Your task to perform on an android device: uninstall "Venmo" Image 0: 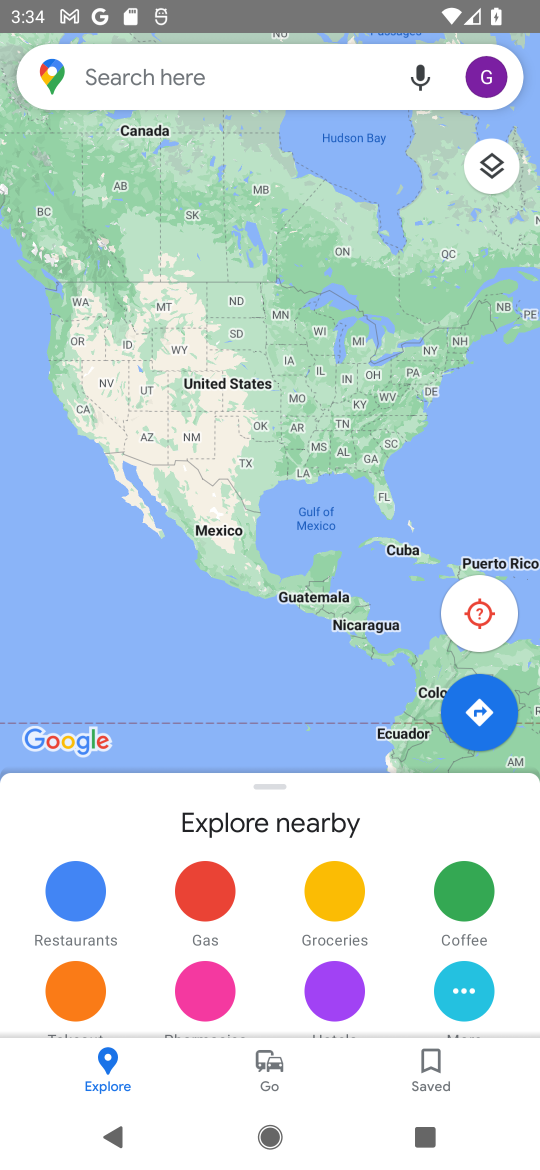
Step 0: click (319, 424)
Your task to perform on an android device: uninstall "Venmo" Image 1: 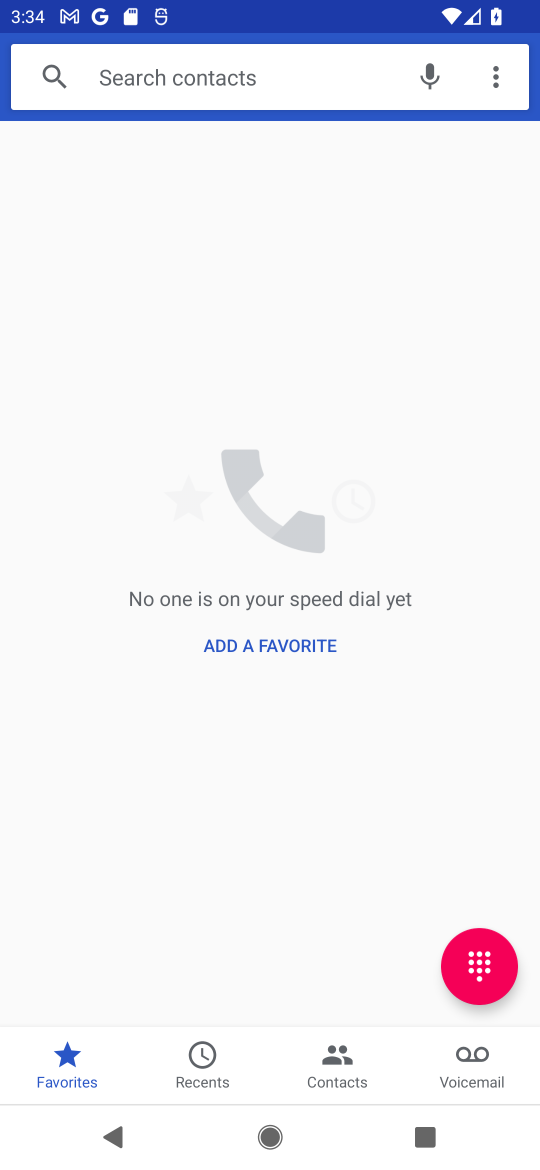
Step 1: drag from (250, 853) to (373, 328)
Your task to perform on an android device: uninstall "Venmo" Image 2: 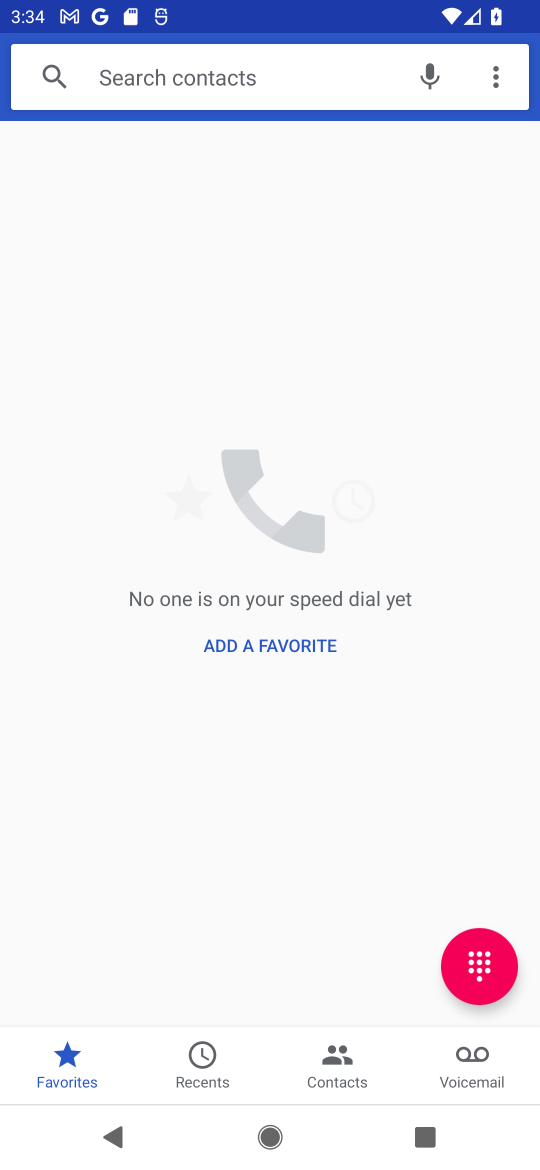
Step 2: drag from (261, 976) to (514, 303)
Your task to perform on an android device: uninstall "Venmo" Image 3: 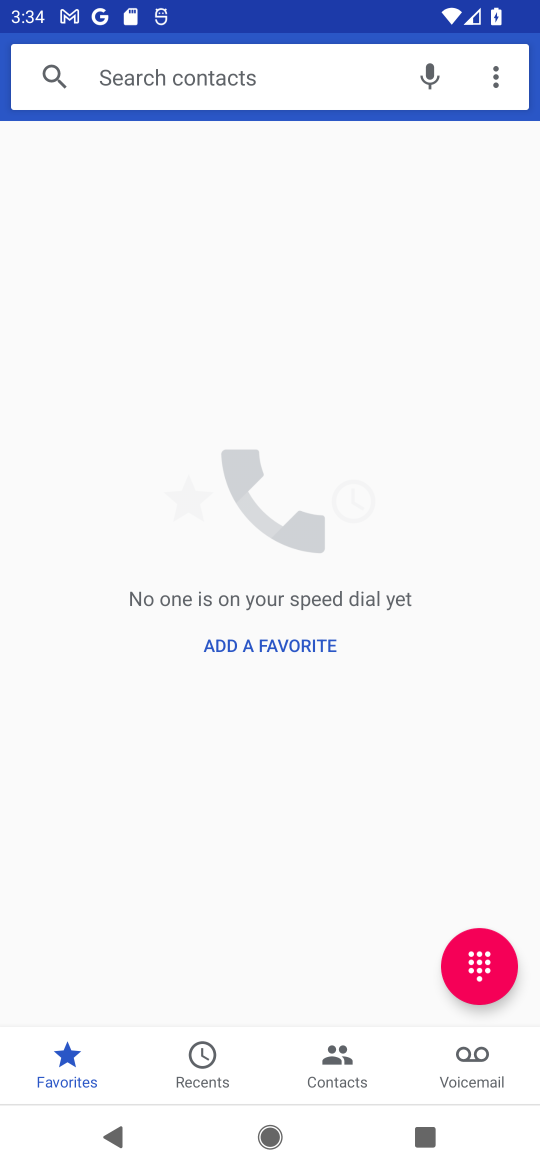
Step 3: press home button
Your task to perform on an android device: uninstall "Venmo" Image 4: 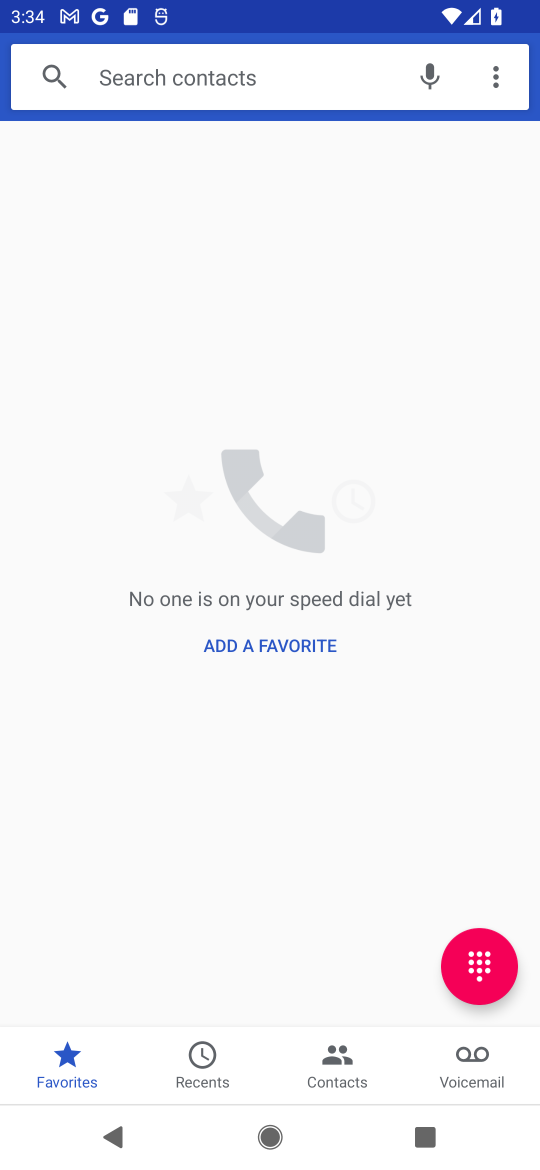
Step 4: drag from (514, 303) to (511, 674)
Your task to perform on an android device: uninstall "Venmo" Image 5: 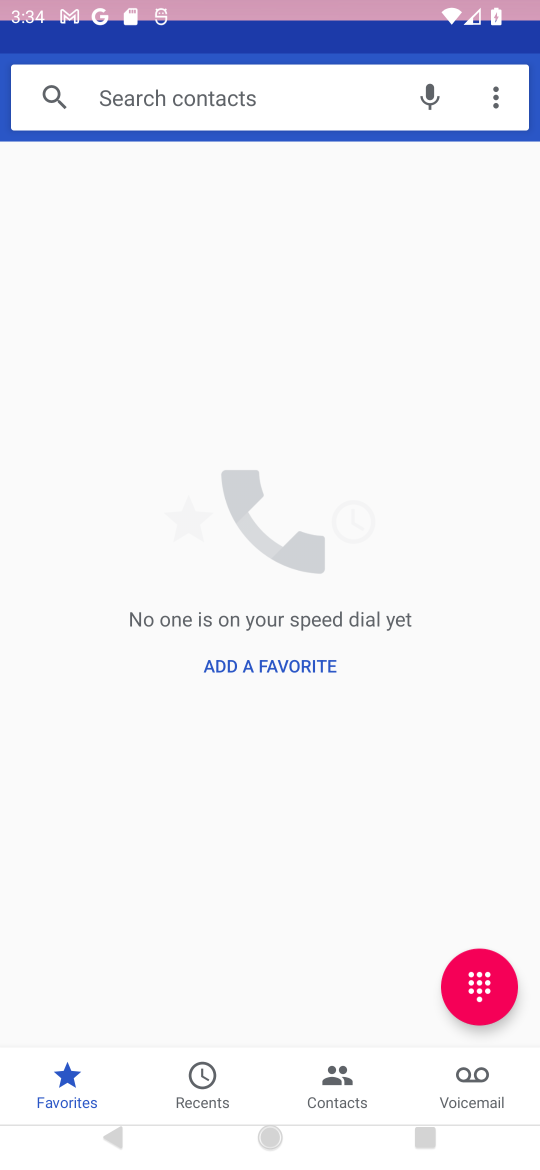
Step 5: drag from (125, 957) to (409, 213)
Your task to perform on an android device: uninstall "Venmo" Image 6: 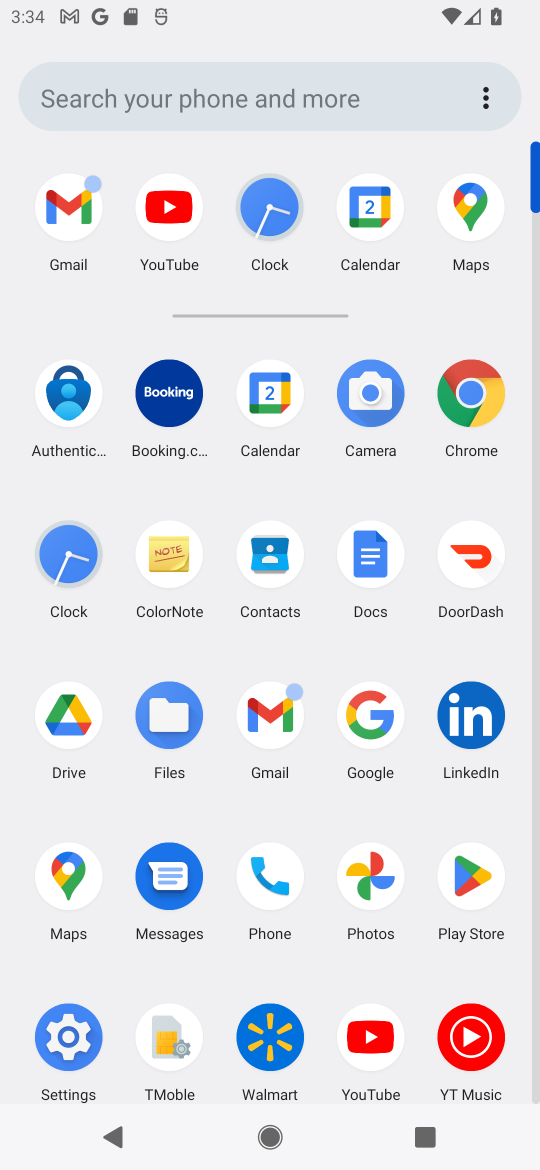
Step 6: click (474, 876)
Your task to perform on an android device: uninstall "Venmo" Image 7: 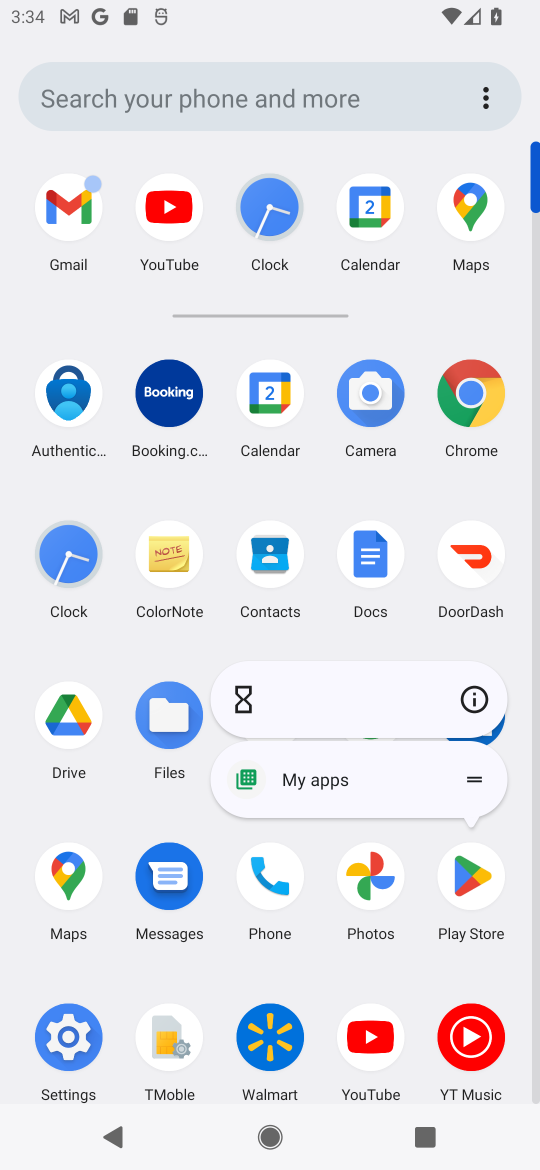
Step 7: click (463, 691)
Your task to perform on an android device: uninstall "Venmo" Image 8: 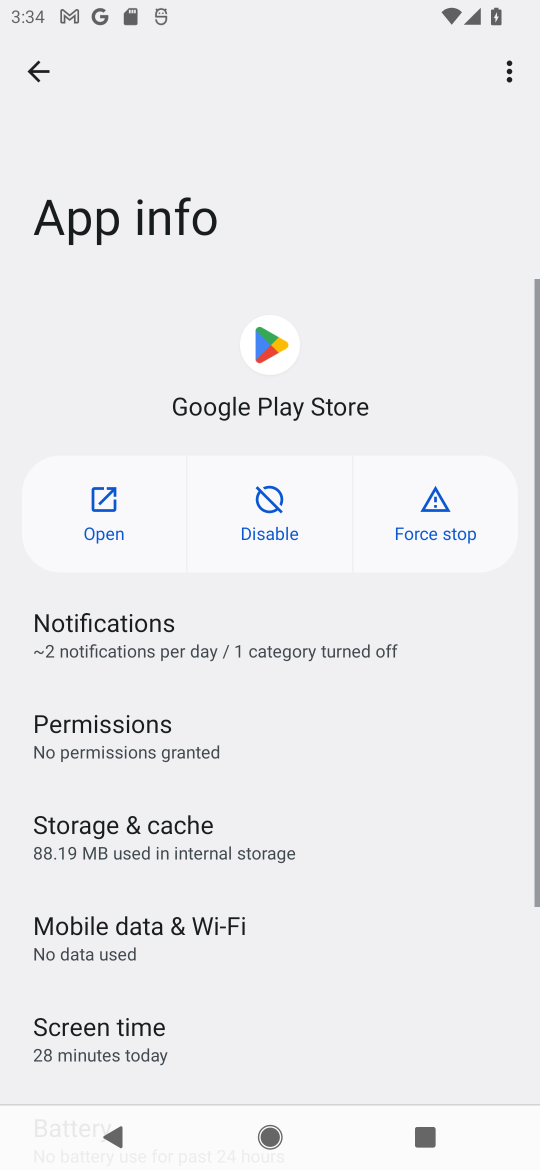
Step 8: click (125, 518)
Your task to perform on an android device: uninstall "Venmo" Image 9: 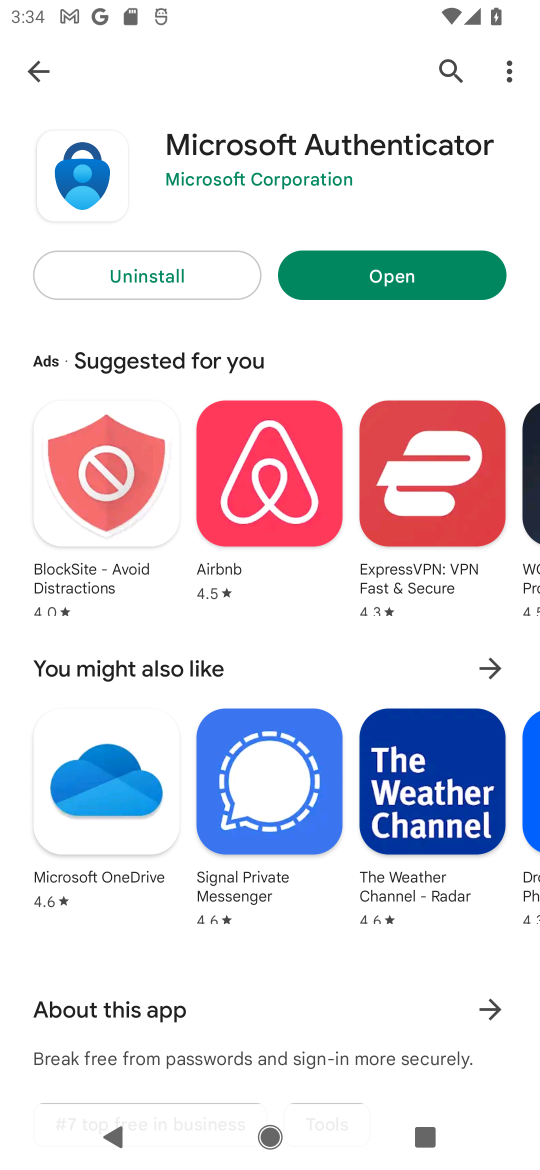
Step 9: click (451, 66)
Your task to perform on an android device: uninstall "Venmo" Image 10: 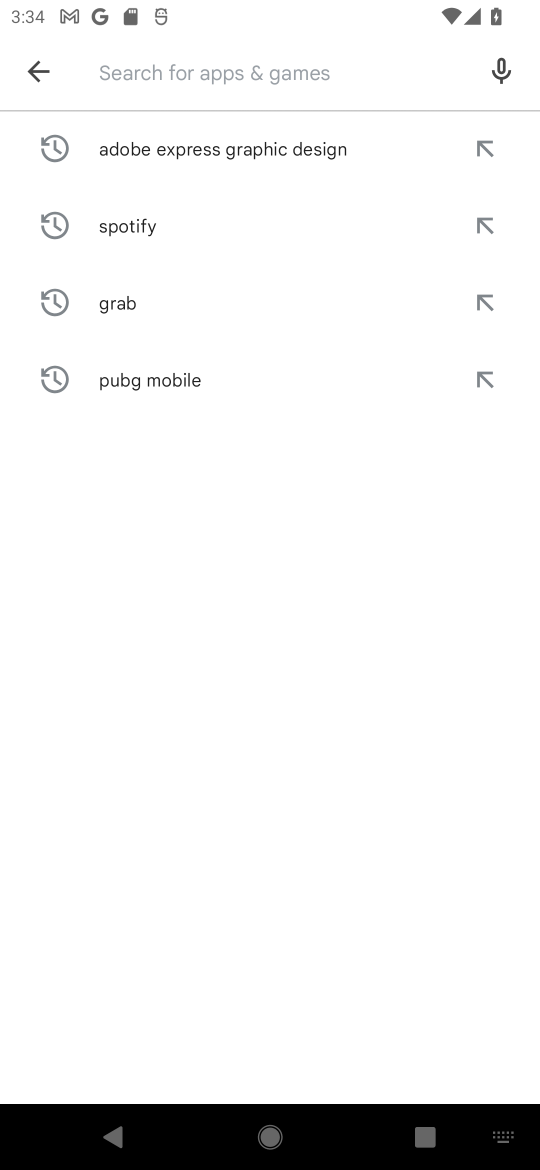
Step 10: click (141, 69)
Your task to perform on an android device: uninstall "Venmo" Image 11: 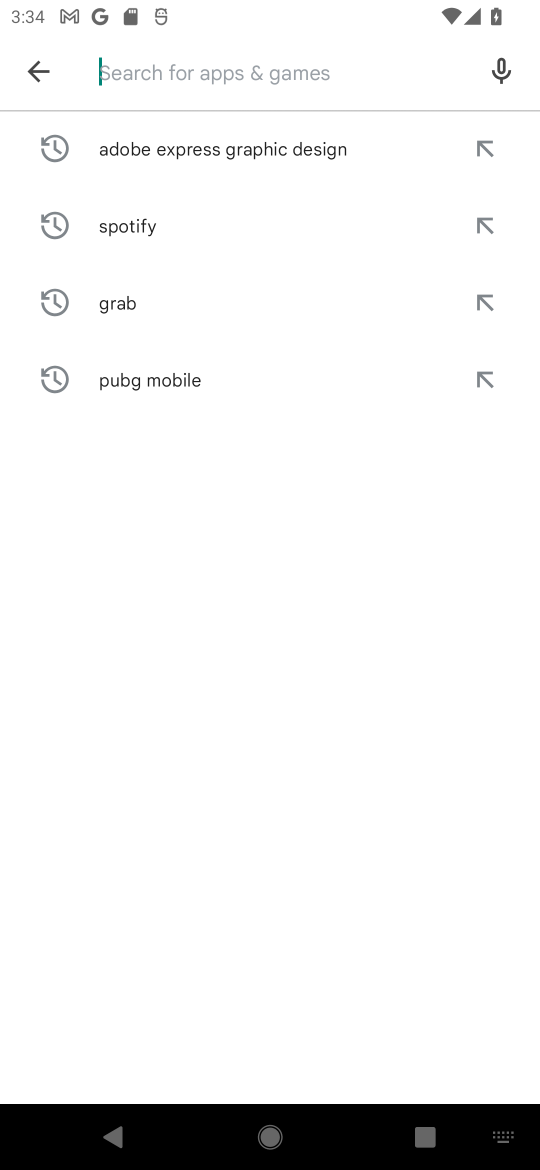
Step 11: type "Venmo"
Your task to perform on an android device: uninstall "Venmo" Image 12: 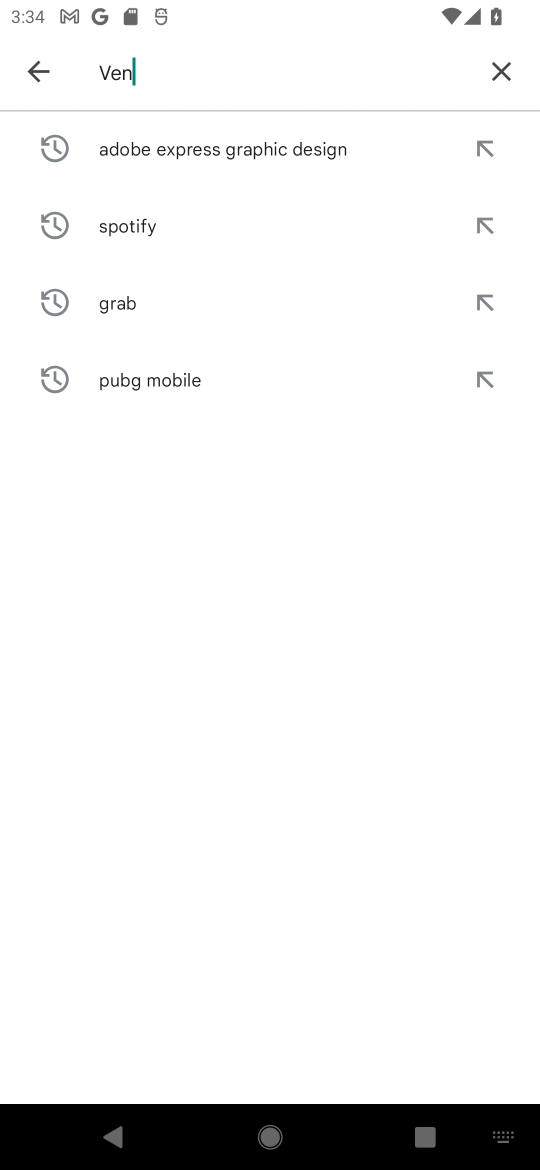
Step 12: type ""
Your task to perform on an android device: uninstall "Venmo" Image 13: 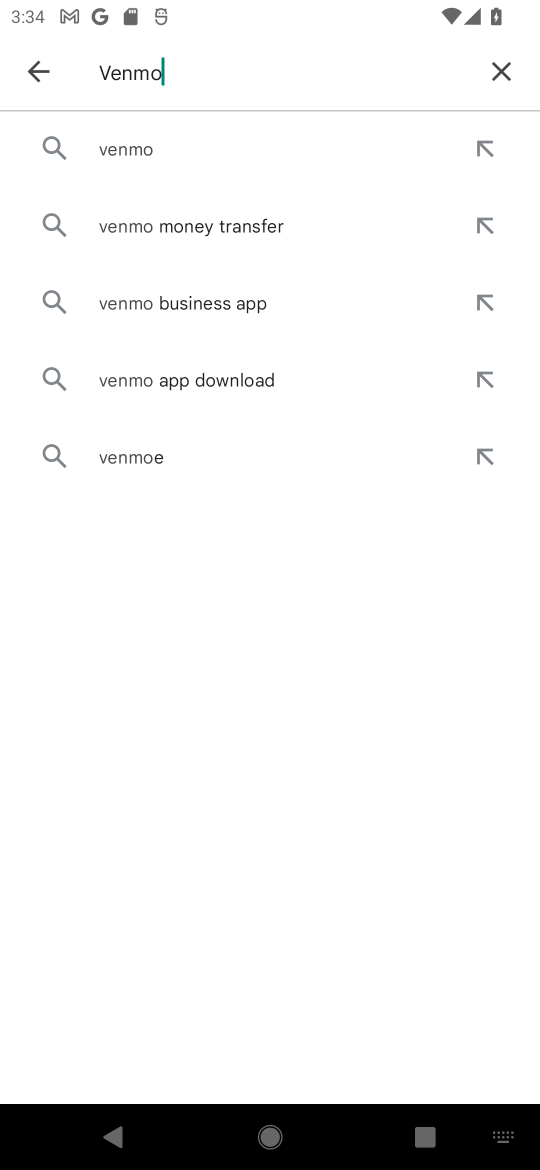
Step 13: click (148, 130)
Your task to perform on an android device: uninstall "Venmo" Image 14: 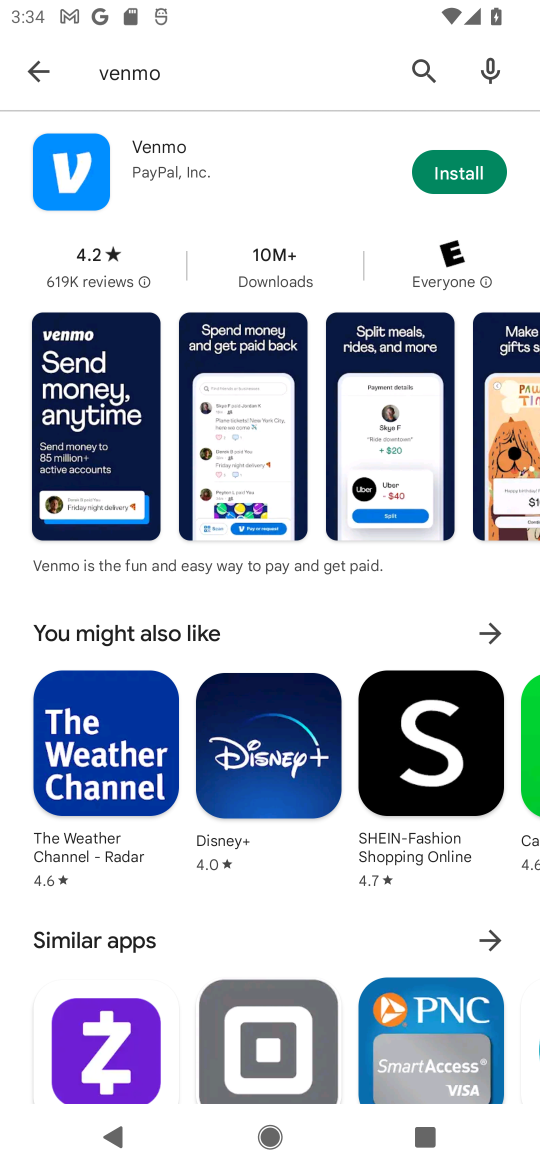
Step 14: click (117, 148)
Your task to perform on an android device: uninstall "Venmo" Image 15: 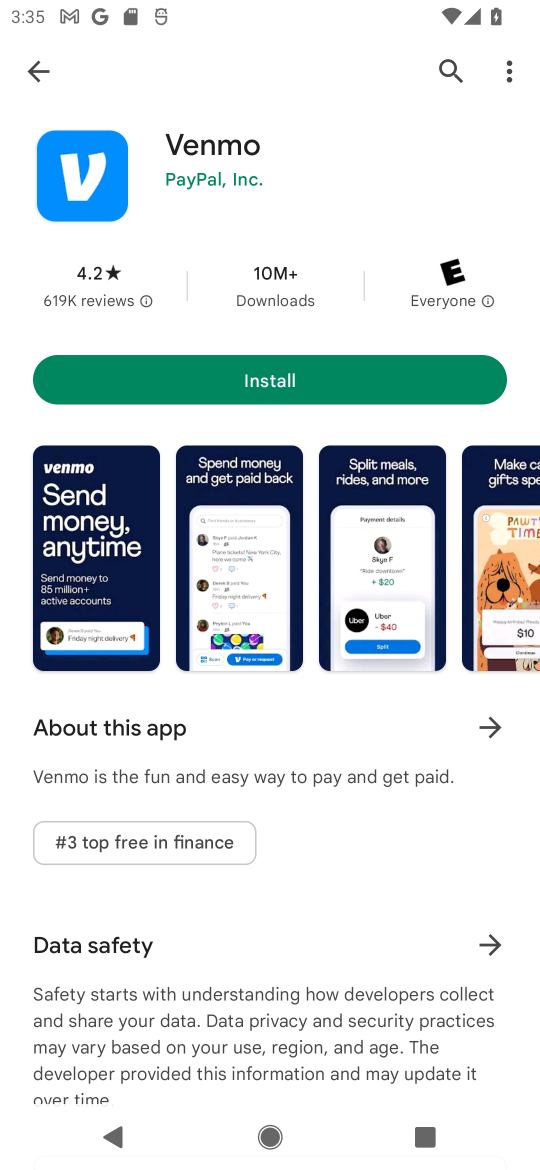
Step 15: task complete